Your task to perform on an android device: Add "razer blade" to the cart on bestbuy.com Image 0: 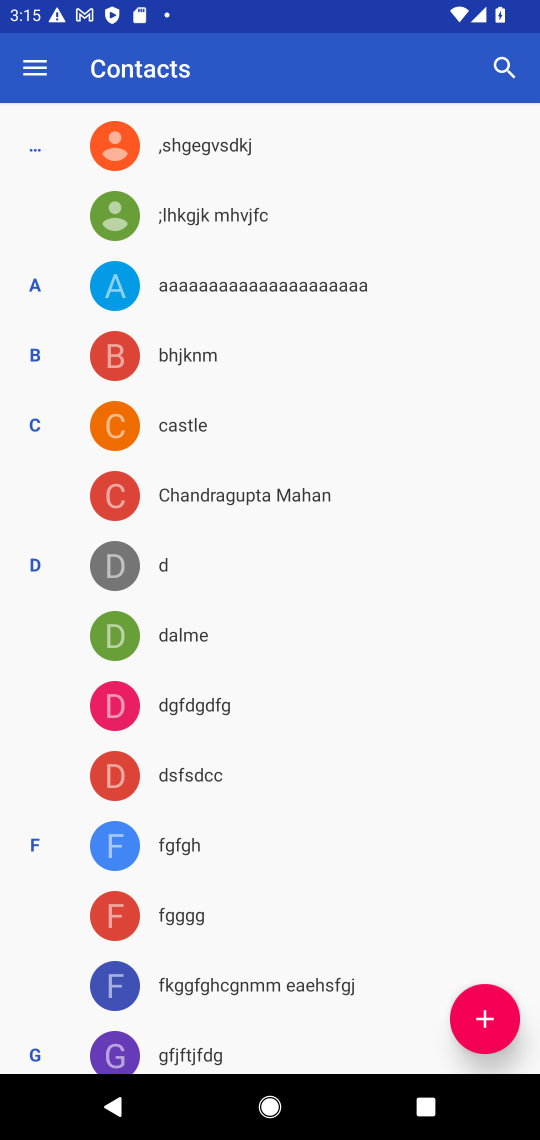
Step 0: press home button
Your task to perform on an android device: Add "razer blade" to the cart on bestbuy.com Image 1: 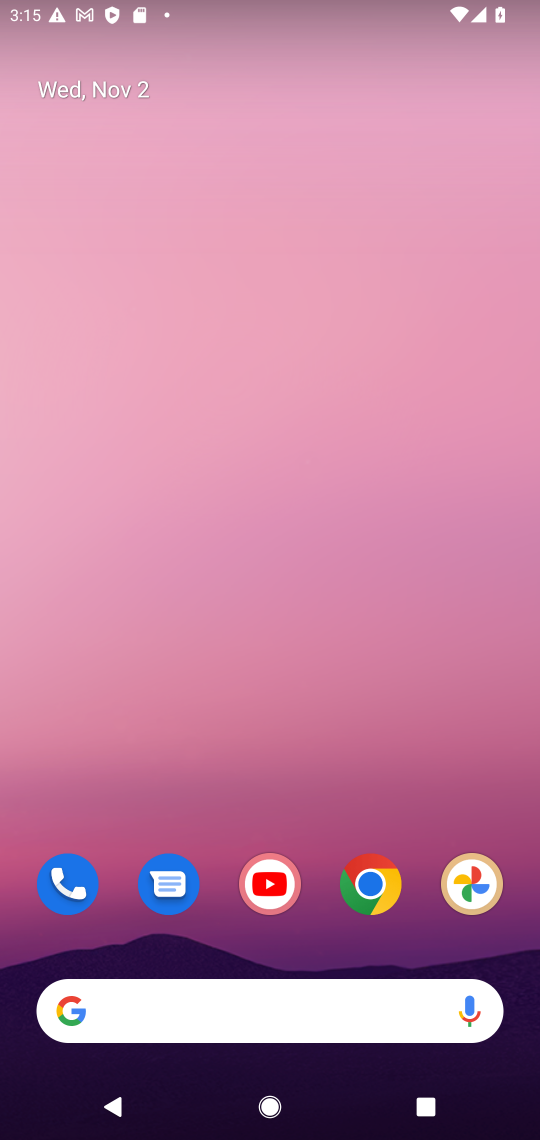
Step 1: click (370, 883)
Your task to perform on an android device: Add "razer blade" to the cart on bestbuy.com Image 2: 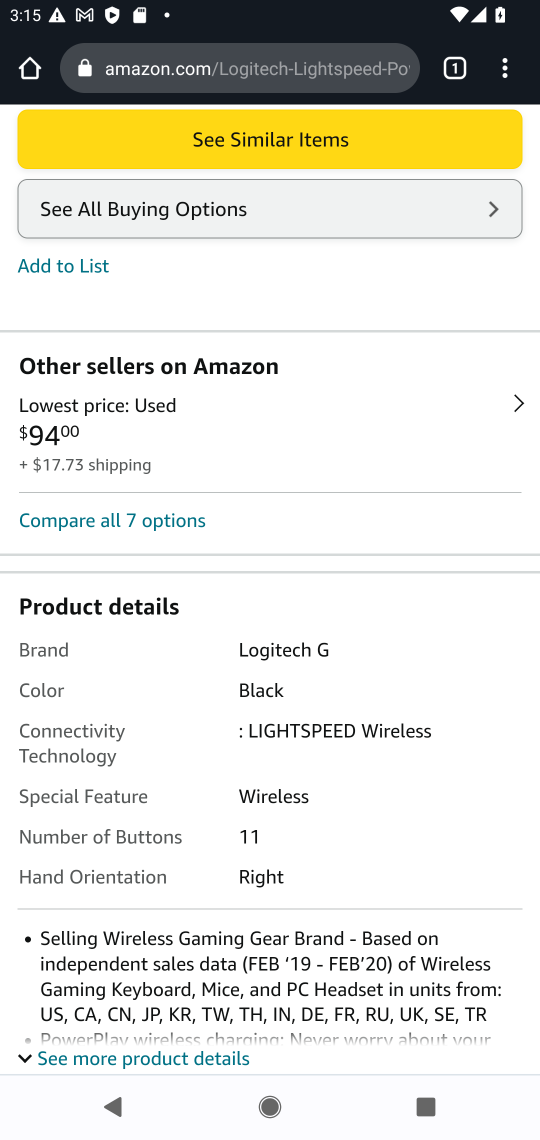
Step 2: click (302, 71)
Your task to perform on an android device: Add "razer blade" to the cart on bestbuy.com Image 3: 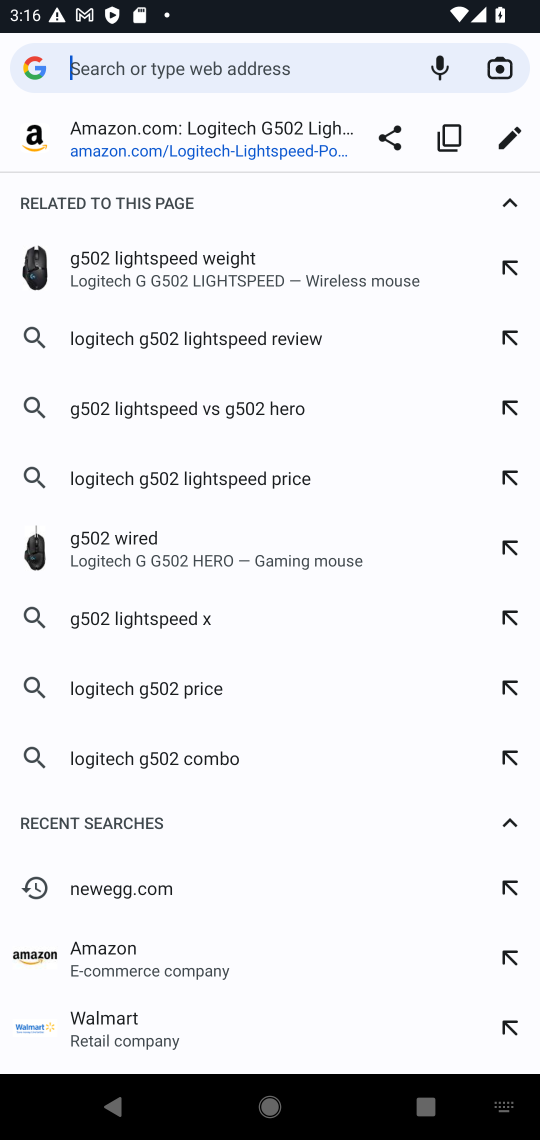
Step 3: type "bestbuy.com"
Your task to perform on an android device: Add "razer blade" to the cart on bestbuy.com Image 4: 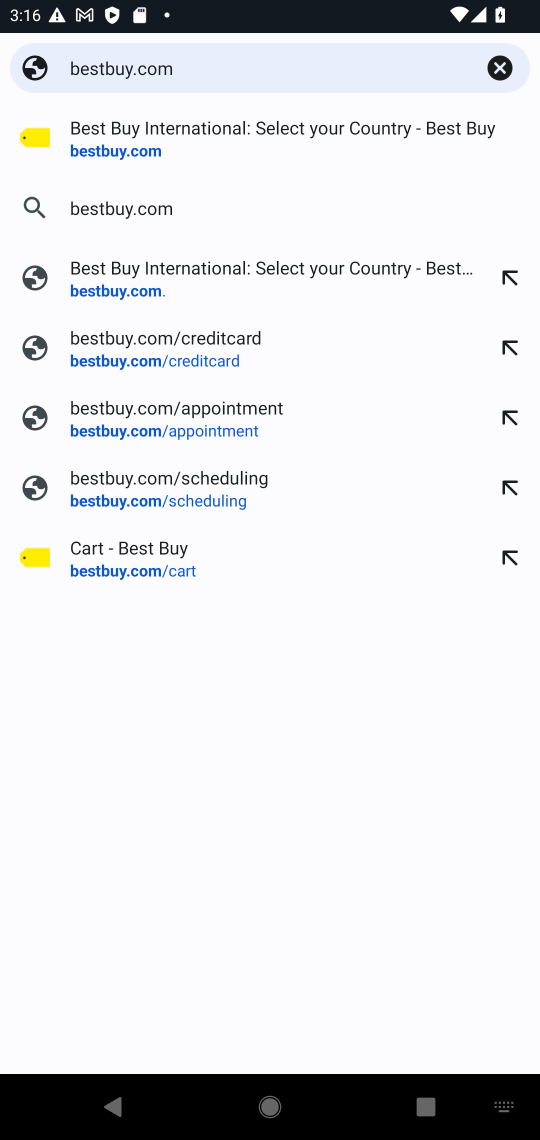
Step 4: click (96, 209)
Your task to perform on an android device: Add "razer blade" to the cart on bestbuy.com Image 5: 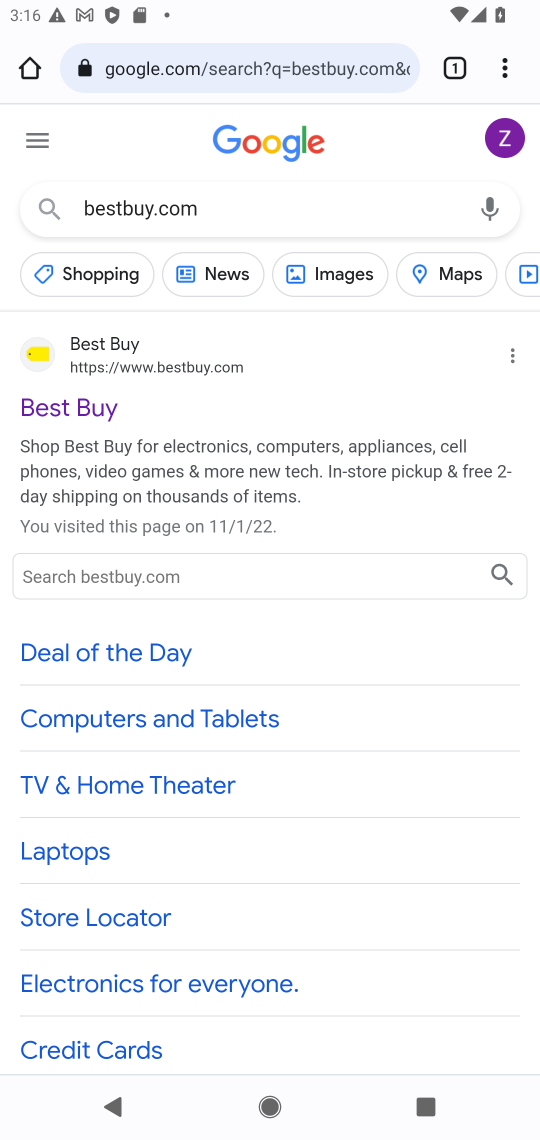
Step 5: click (112, 357)
Your task to perform on an android device: Add "razer blade" to the cart on bestbuy.com Image 6: 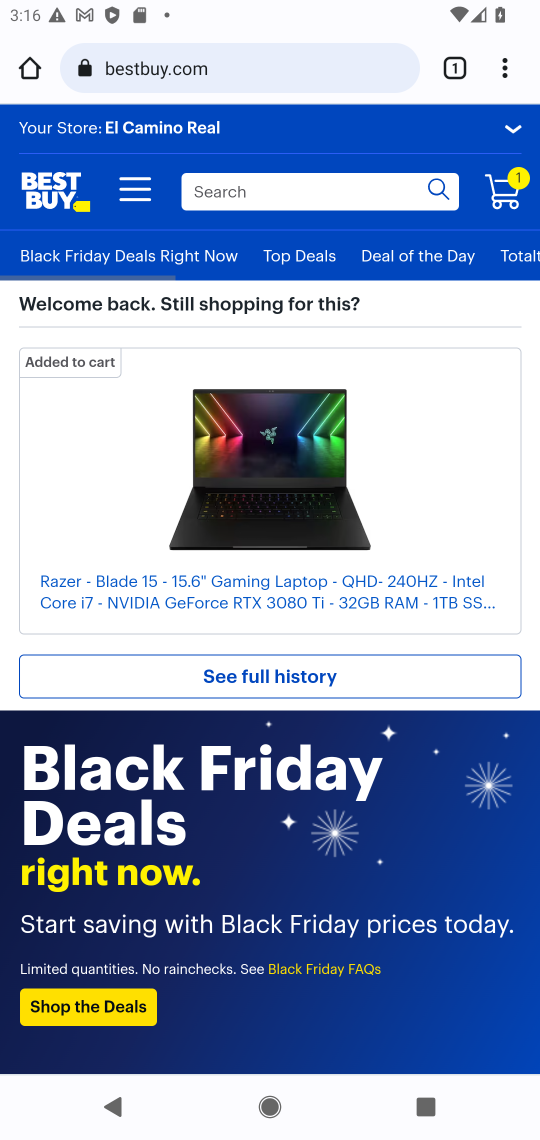
Step 6: click (281, 193)
Your task to perform on an android device: Add "razer blade" to the cart on bestbuy.com Image 7: 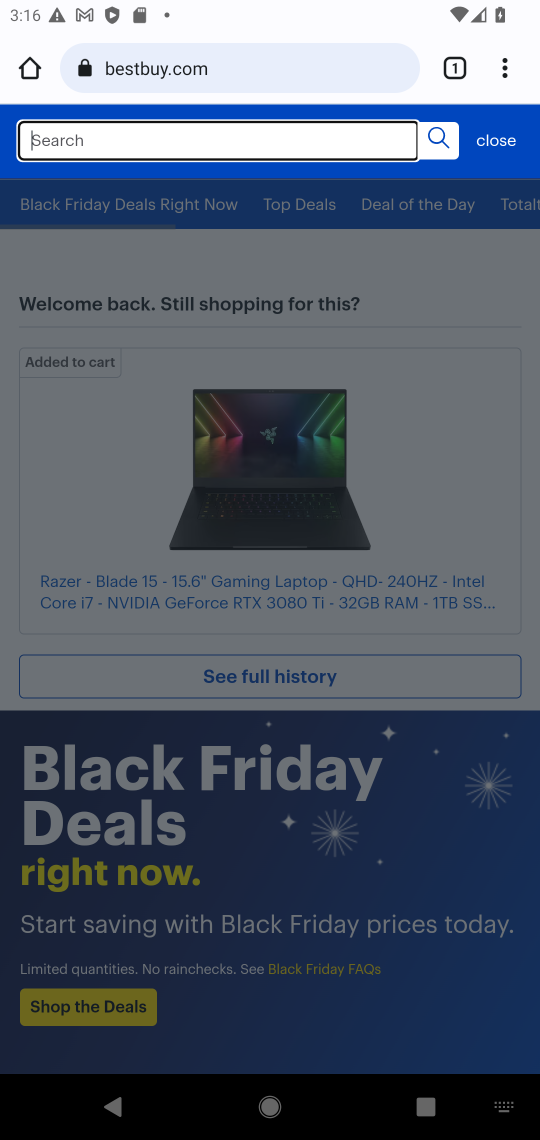
Step 7: type "razer blade"
Your task to perform on an android device: Add "razer blade" to the cart on bestbuy.com Image 8: 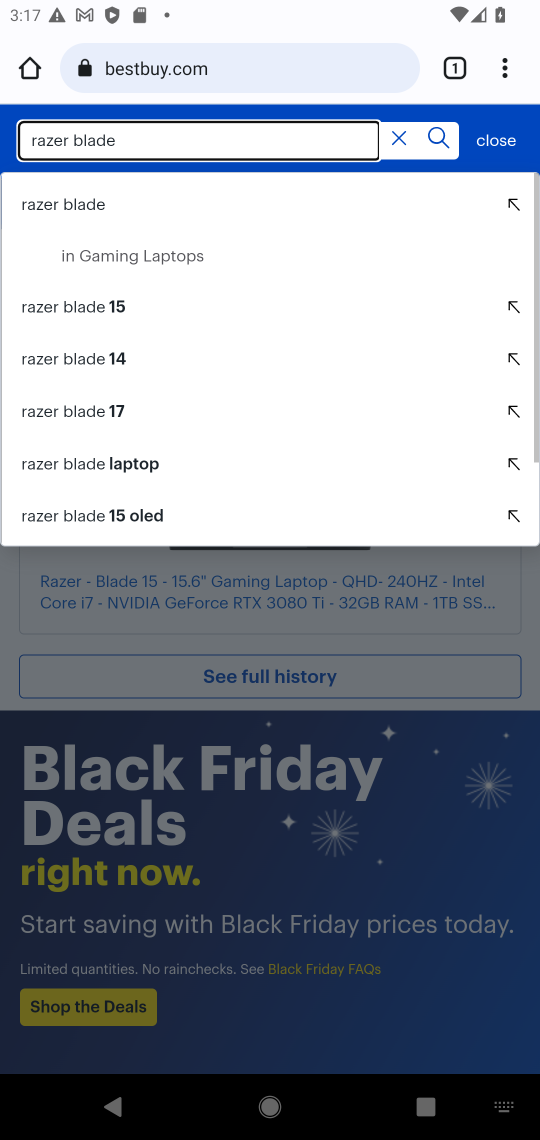
Step 8: click (57, 198)
Your task to perform on an android device: Add "razer blade" to the cart on bestbuy.com Image 9: 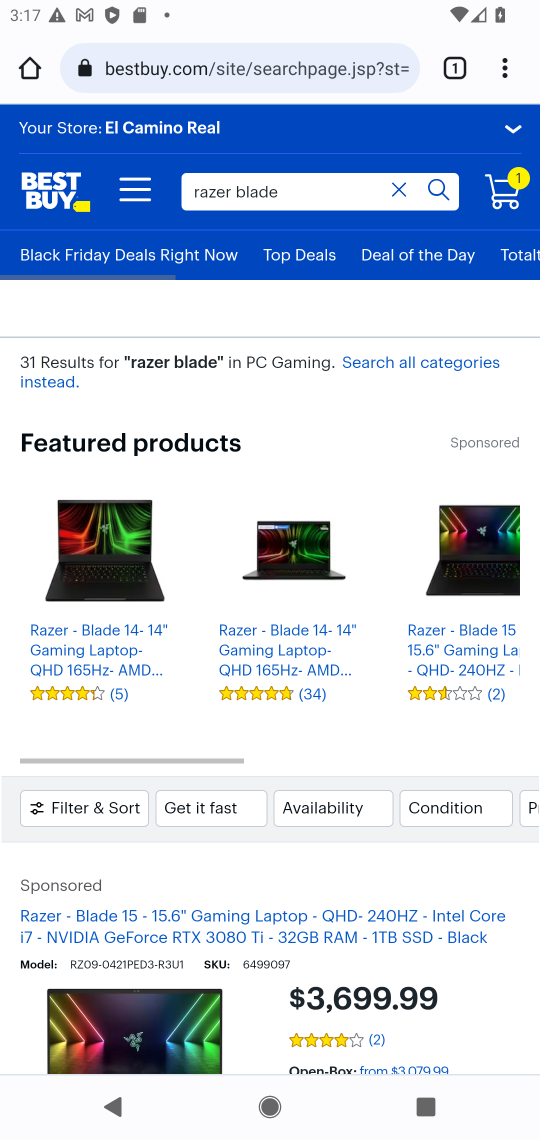
Step 9: drag from (406, 903) to (424, 469)
Your task to perform on an android device: Add "razer blade" to the cart on bestbuy.com Image 10: 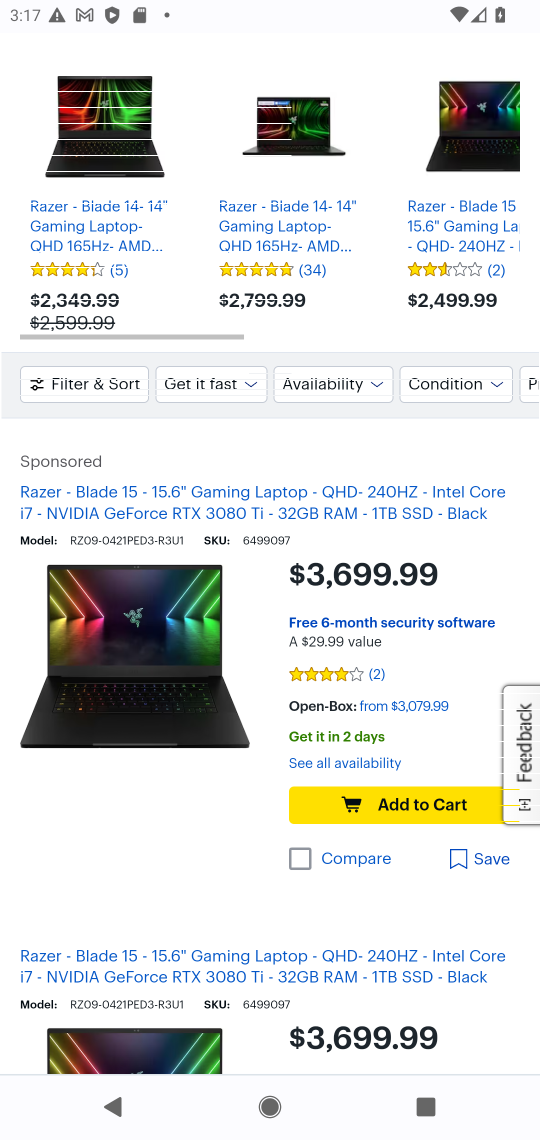
Step 10: click (383, 812)
Your task to perform on an android device: Add "razer blade" to the cart on bestbuy.com Image 11: 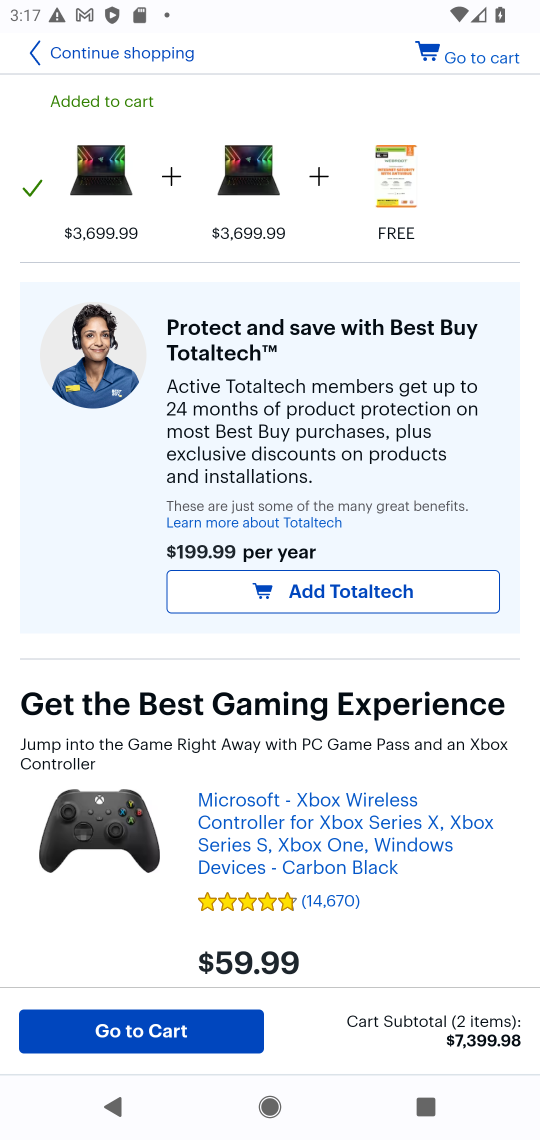
Step 11: click (172, 1032)
Your task to perform on an android device: Add "razer blade" to the cart on bestbuy.com Image 12: 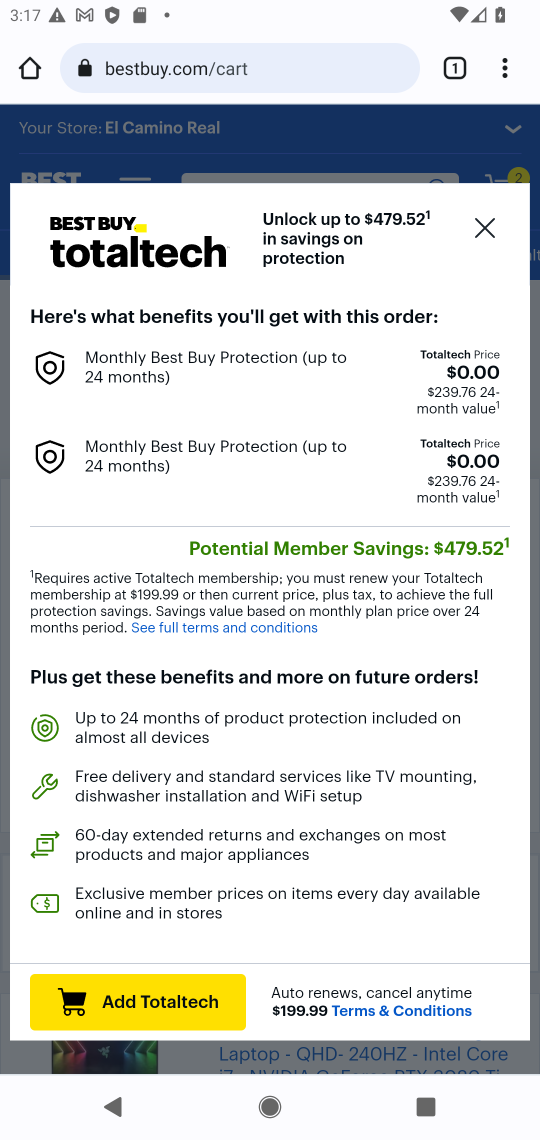
Step 12: click (487, 228)
Your task to perform on an android device: Add "razer blade" to the cart on bestbuy.com Image 13: 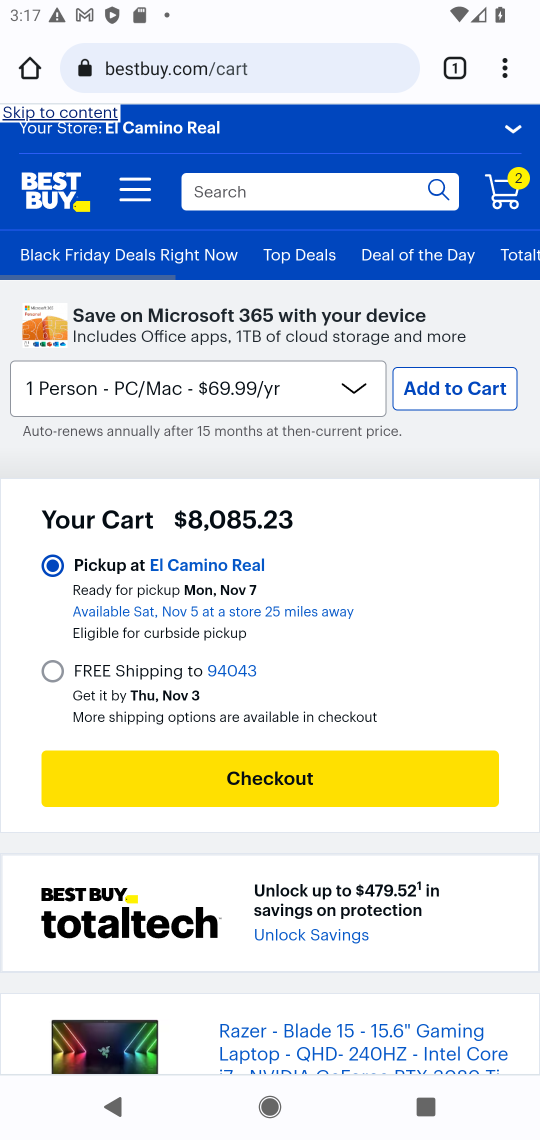
Step 13: task complete